Your task to perform on an android device: toggle improve location accuracy Image 0: 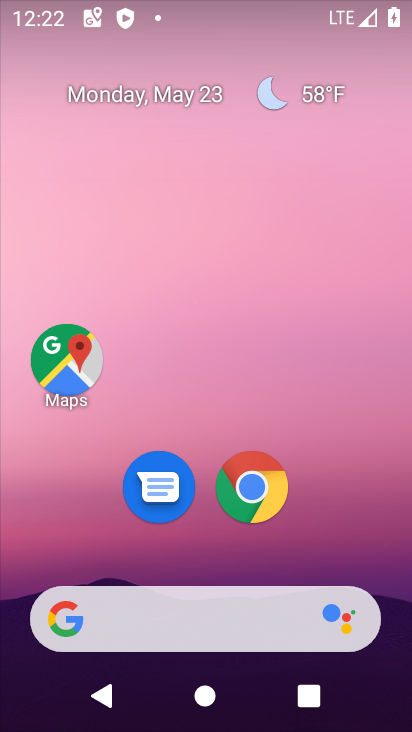
Step 0: drag from (390, 586) to (371, 12)
Your task to perform on an android device: toggle improve location accuracy Image 1: 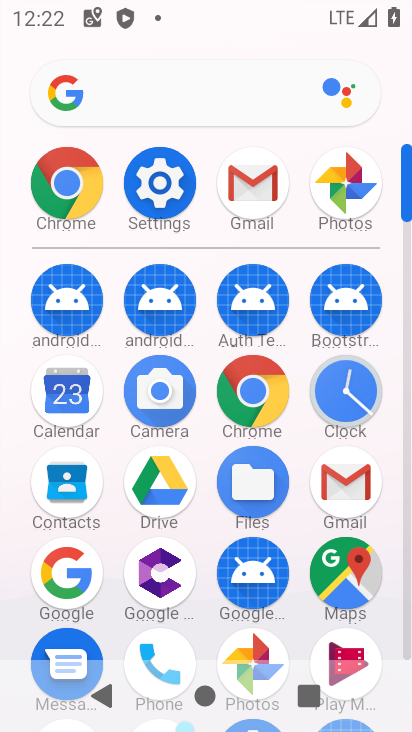
Step 1: click (405, 645)
Your task to perform on an android device: toggle improve location accuracy Image 2: 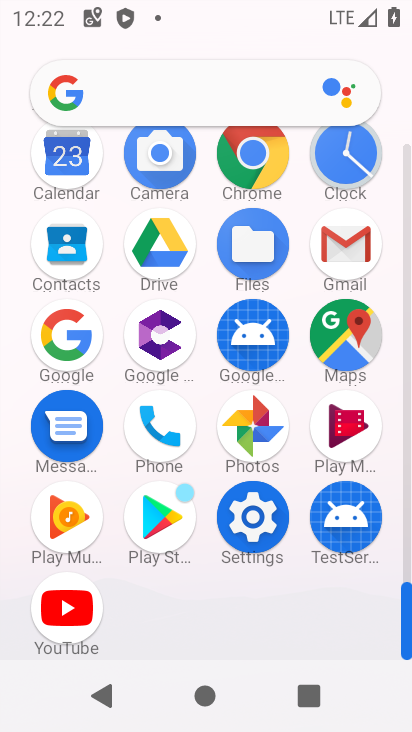
Step 2: click (254, 516)
Your task to perform on an android device: toggle improve location accuracy Image 3: 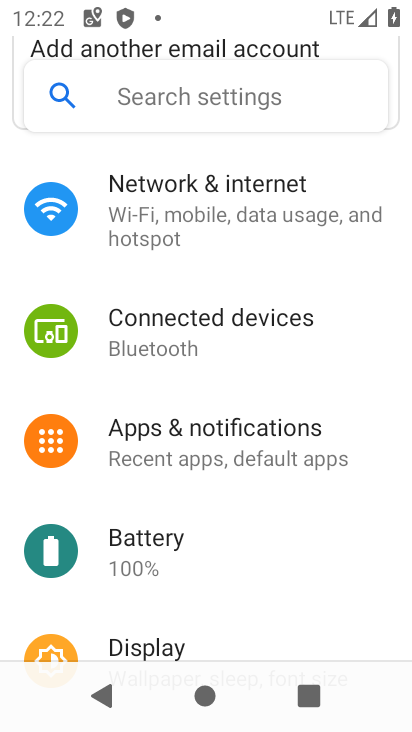
Step 3: drag from (365, 617) to (381, 179)
Your task to perform on an android device: toggle improve location accuracy Image 4: 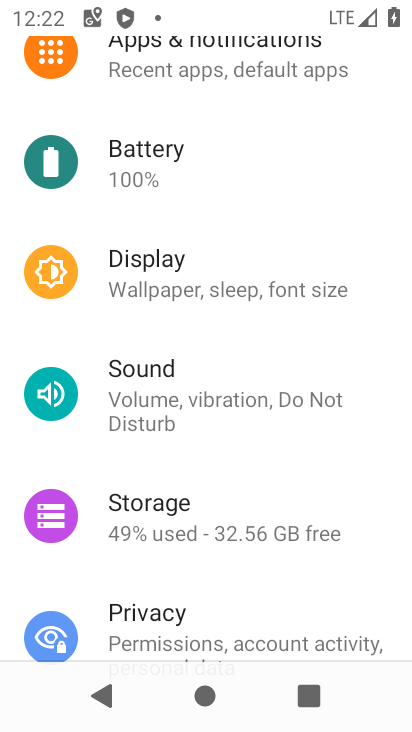
Step 4: drag from (224, 625) to (325, 128)
Your task to perform on an android device: toggle improve location accuracy Image 5: 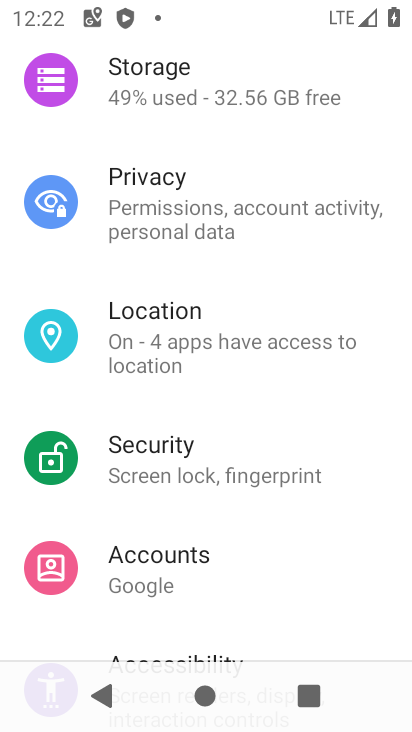
Step 5: click (169, 337)
Your task to perform on an android device: toggle improve location accuracy Image 6: 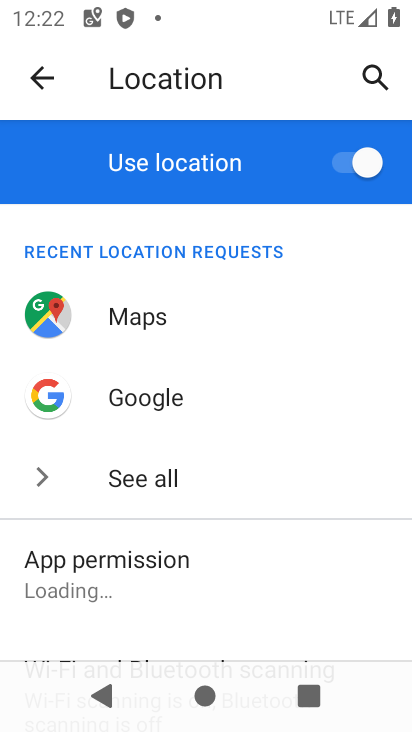
Step 6: drag from (302, 642) to (284, 117)
Your task to perform on an android device: toggle improve location accuracy Image 7: 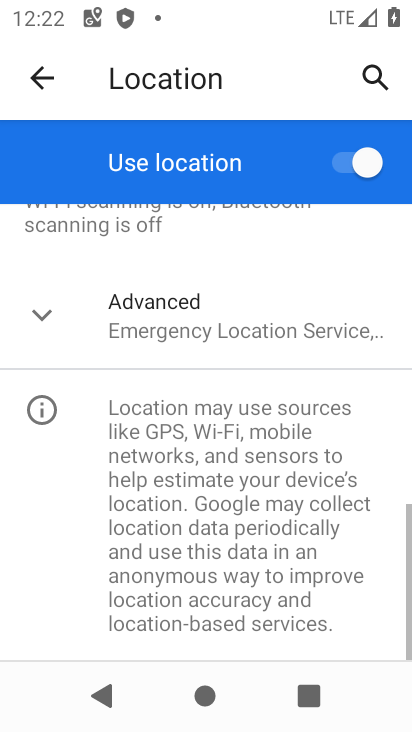
Step 7: click (33, 318)
Your task to perform on an android device: toggle improve location accuracy Image 8: 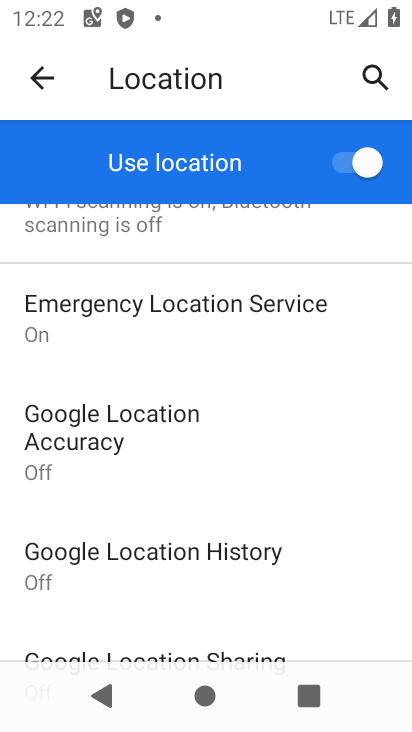
Step 8: click (48, 433)
Your task to perform on an android device: toggle improve location accuracy Image 9: 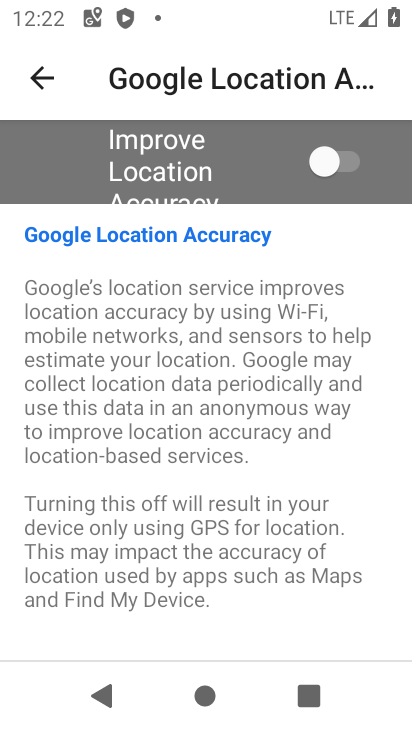
Step 9: click (349, 157)
Your task to perform on an android device: toggle improve location accuracy Image 10: 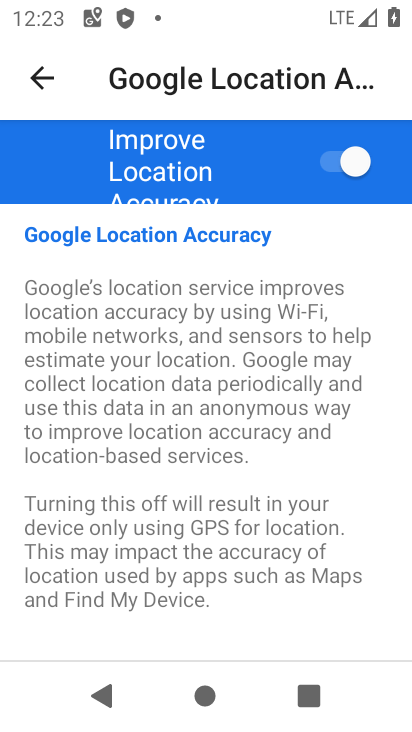
Step 10: task complete